Your task to perform on an android device: What's a good restaurant in Los Angeles? Image 0: 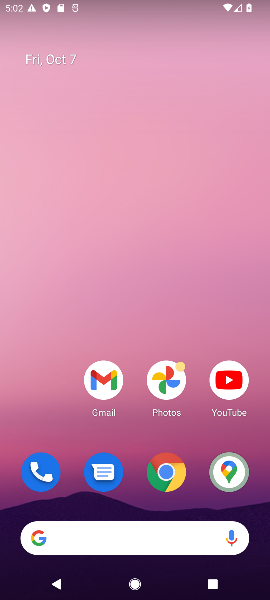
Step 0: click (169, 484)
Your task to perform on an android device: What's a good restaurant in Los Angeles? Image 1: 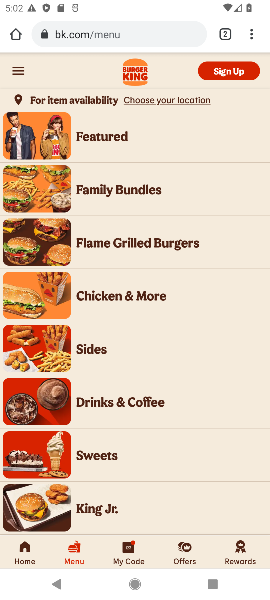
Step 1: click (127, 32)
Your task to perform on an android device: What's a good restaurant in Los Angeles? Image 2: 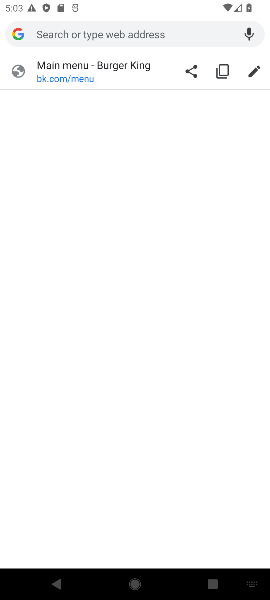
Step 2: type "good restaurant in Los Angeles"
Your task to perform on an android device: What's a good restaurant in Los Angeles? Image 3: 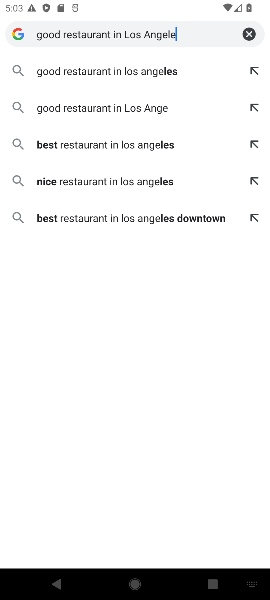
Step 3: press enter
Your task to perform on an android device: What's a good restaurant in Los Angeles? Image 4: 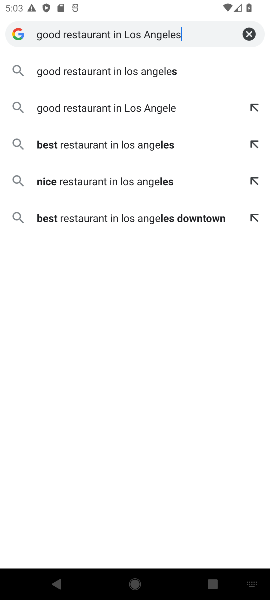
Step 4: type ""
Your task to perform on an android device: What's a good restaurant in Los Angeles? Image 5: 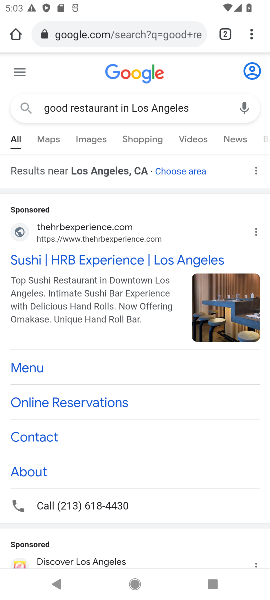
Step 5: drag from (185, 419) to (176, 241)
Your task to perform on an android device: What's a good restaurant in Los Angeles? Image 6: 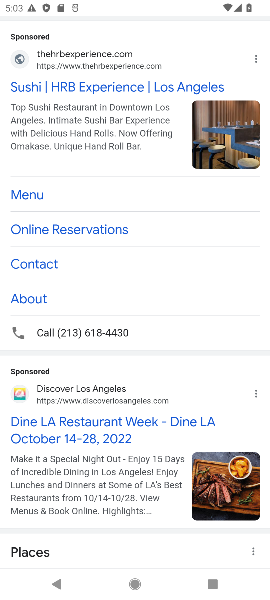
Step 6: drag from (205, 401) to (150, 120)
Your task to perform on an android device: What's a good restaurant in Los Angeles? Image 7: 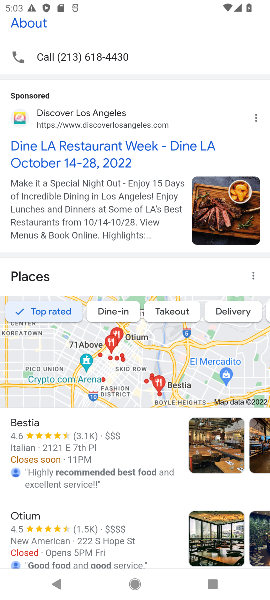
Step 7: drag from (122, 510) to (133, 338)
Your task to perform on an android device: What's a good restaurant in Los Angeles? Image 8: 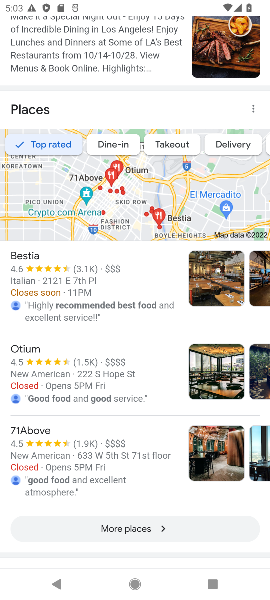
Step 8: click (128, 529)
Your task to perform on an android device: What's a good restaurant in Los Angeles? Image 9: 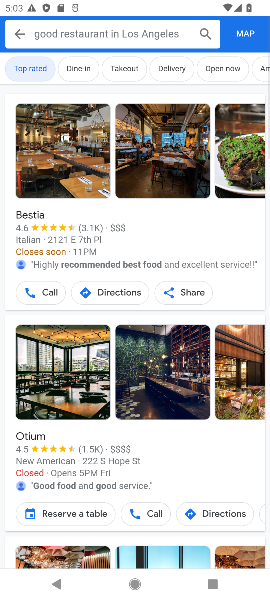
Step 9: task complete